Your task to perform on an android device: allow notifications from all sites in the chrome app Image 0: 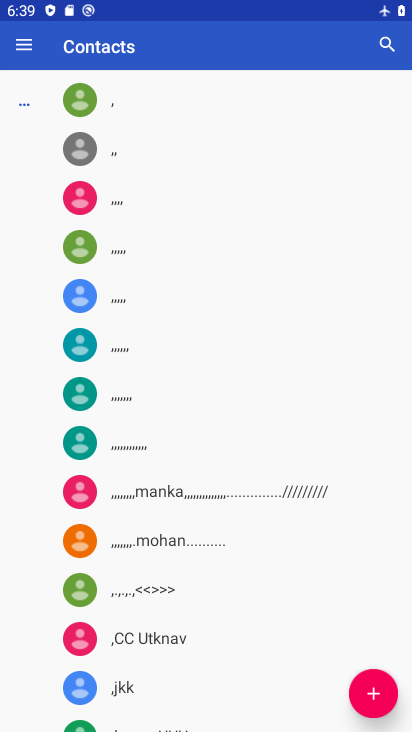
Step 0: press home button
Your task to perform on an android device: allow notifications from all sites in the chrome app Image 1: 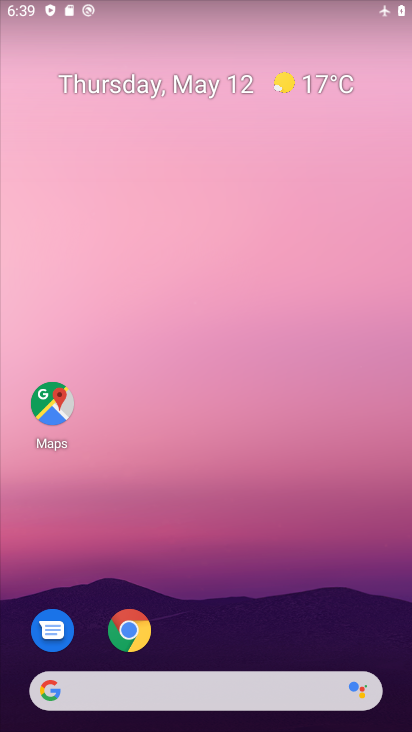
Step 1: drag from (378, 651) to (124, 36)
Your task to perform on an android device: allow notifications from all sites in the chrome app Image 2: 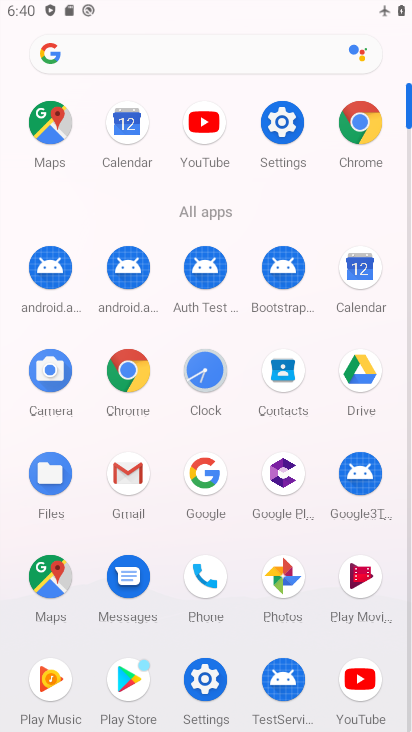
Step 2: click (95, 353)
Your task to perform on an android device: allow notifications from all sites in the chrome app Image 3: 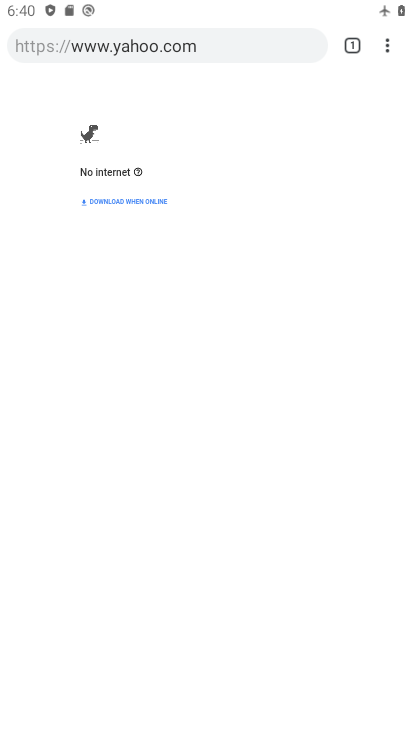
Step 3: press back button
Your task to perform on an android device: allow notifications from all sites in the chrome app Image 4: 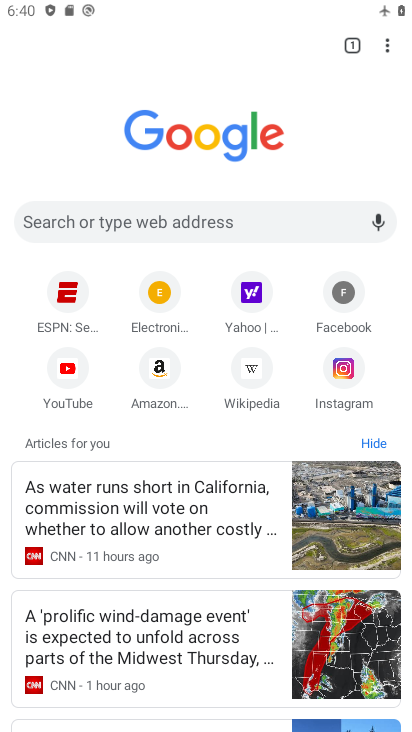
Step 4: click (383, 46)
Your task to perform on an android device: allow notifications from all sites in the chrome app Image 5: 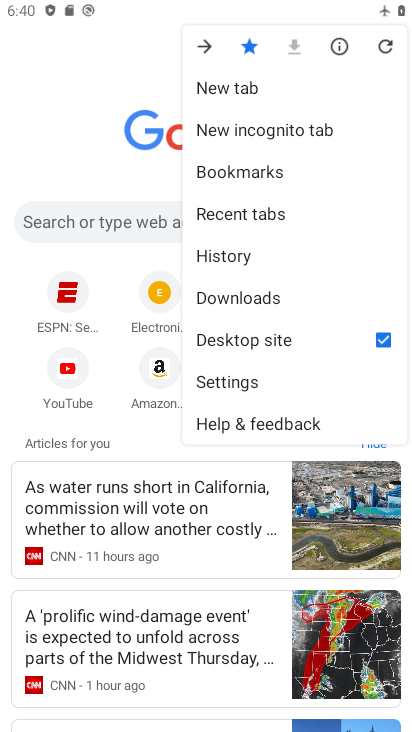
Step 5: click (254, 379)
Your task to perform on an android device: allow notifications from all sites in the chrome app Image 6: 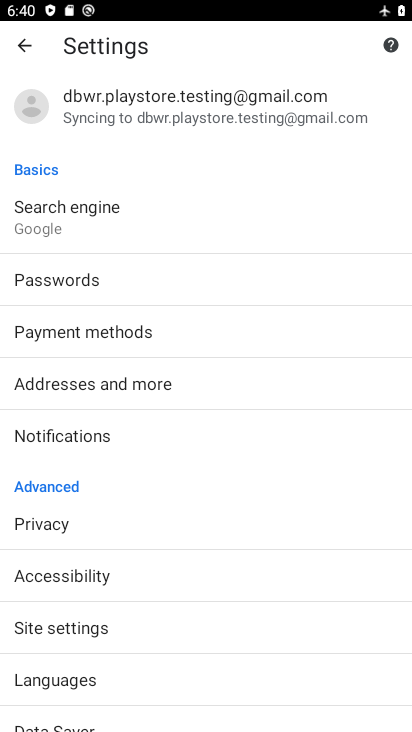
Step 6: click (56, 421)
Your task to perform on an android device: allow notifications from all sites in the chrome app Image 7: 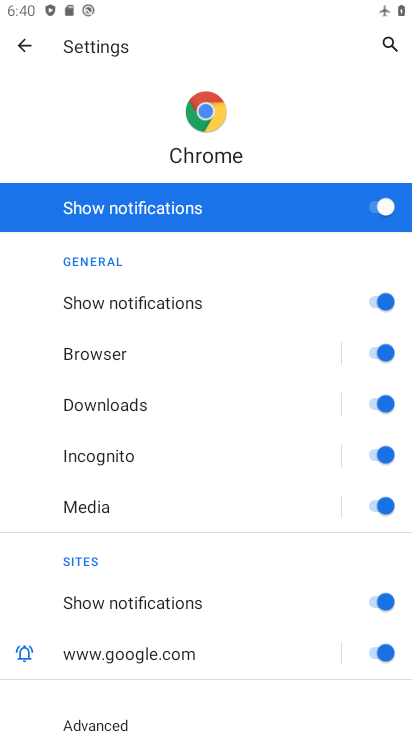
Step 7: task complete